Your task to perform on an android device: check data usage Image 0: 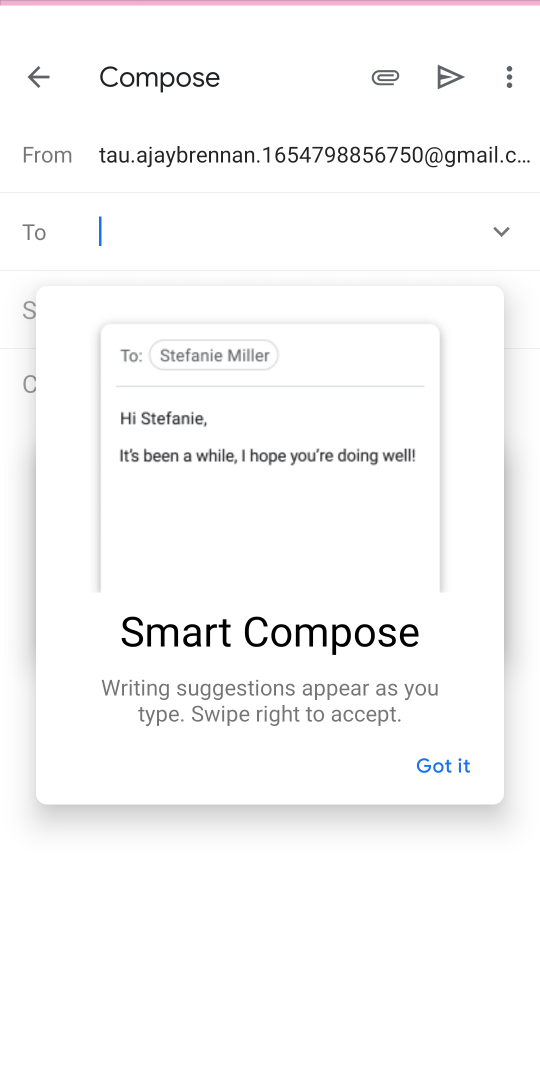
Step 0: press home button
Your task to perform on an android device: check data usage Image 1: 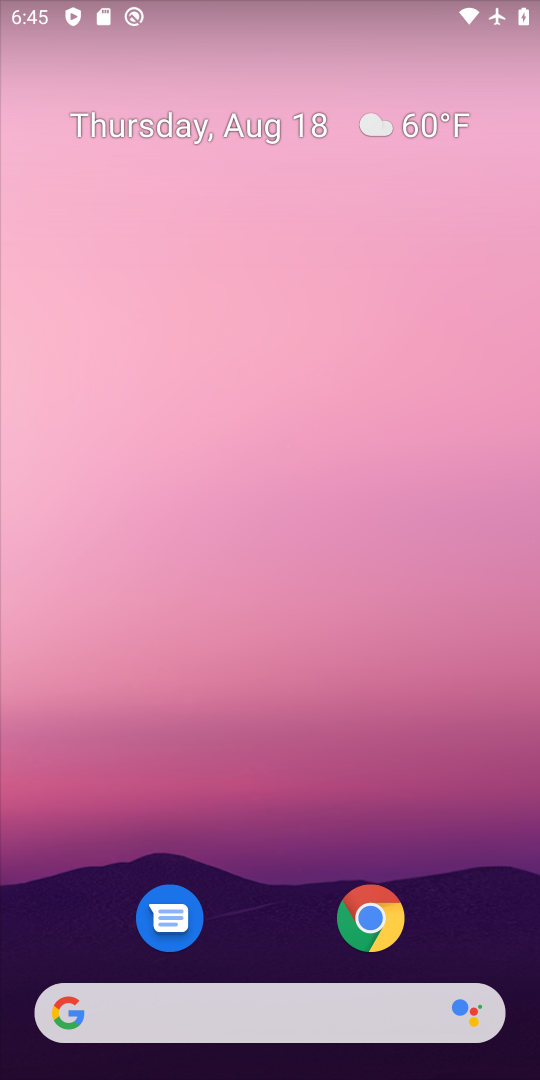
Step 1: drag from (291, 799) to (384, 34)
Your task to perform on an android device: check data usage Image 2: 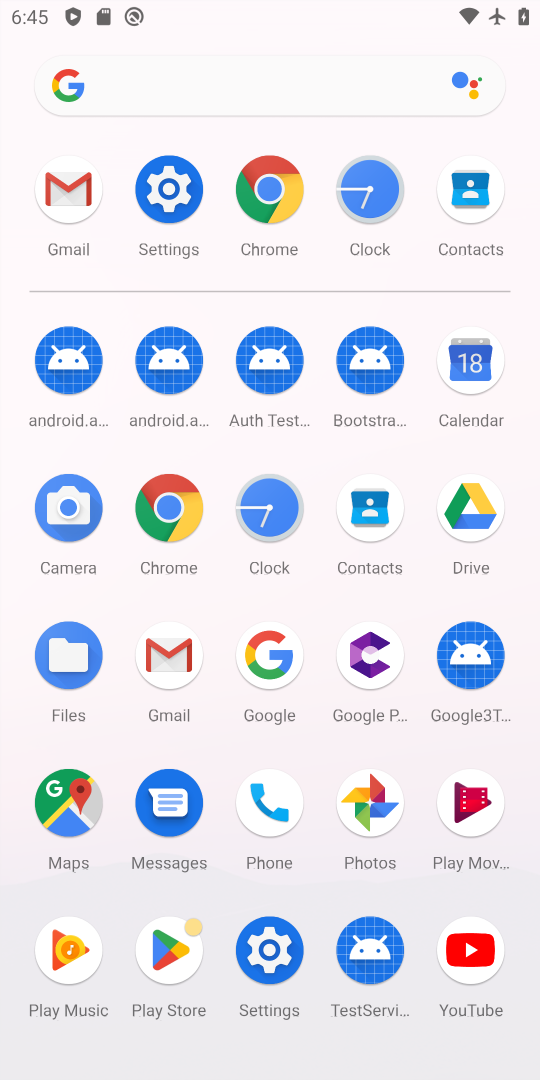
Step 2: click (180, 184)
Your task to perform on an android device: check data usage Image 3: 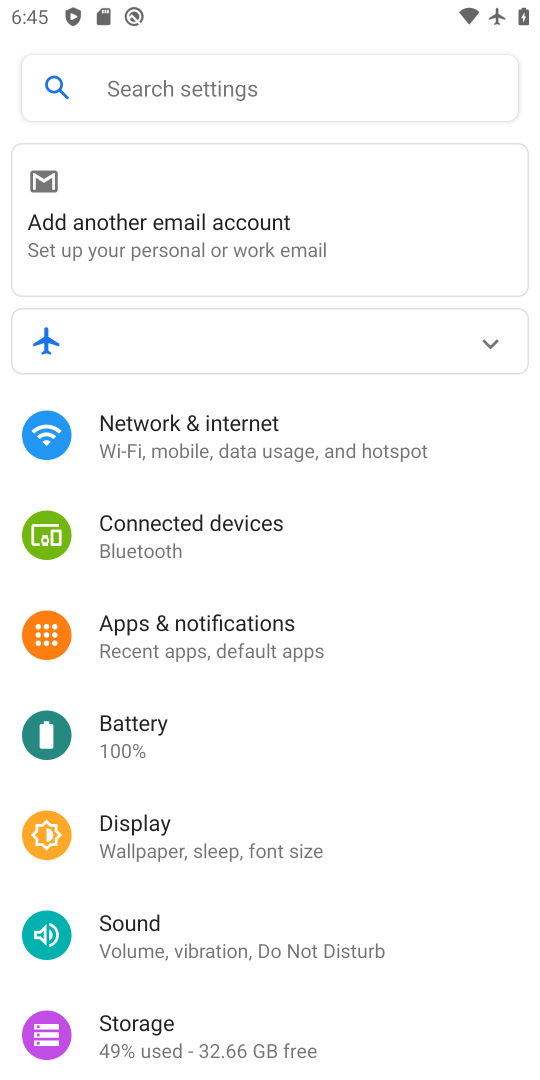
Step 3: drag from (429, 996) to (432, 597)
Your task to perform on an android device: check data usage Image 4: 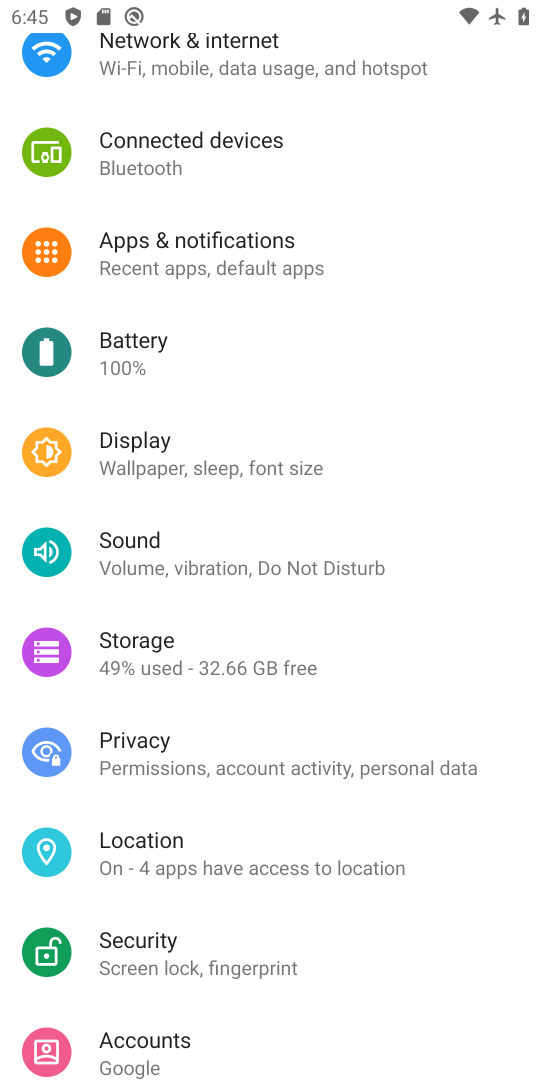
Step 4: click (212, 78)
Your task to perform on an android device: check data usage Image 5: 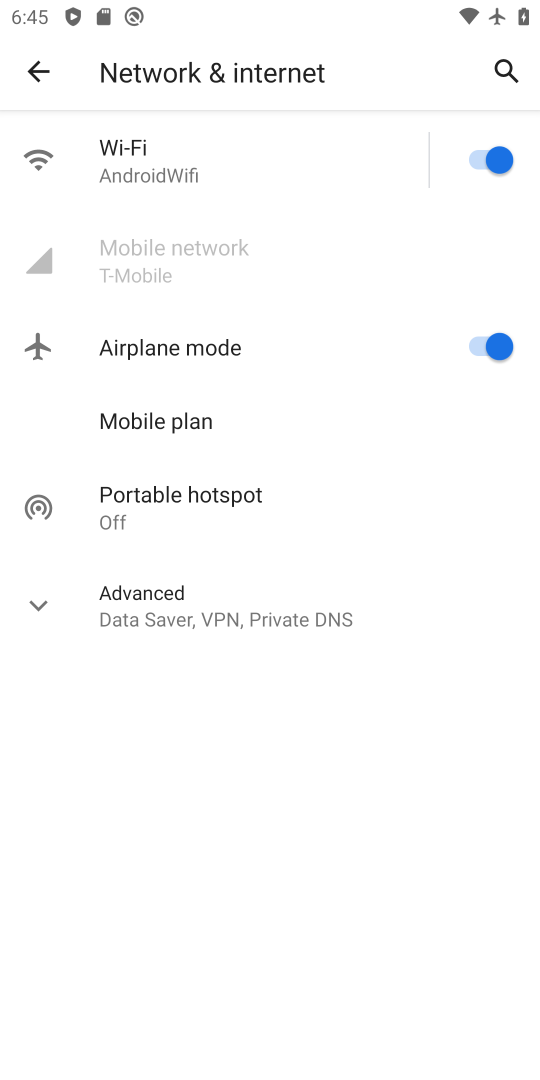
Step 5: click (506, 349)
Your task to perform on an android device: check data usage Image 6: 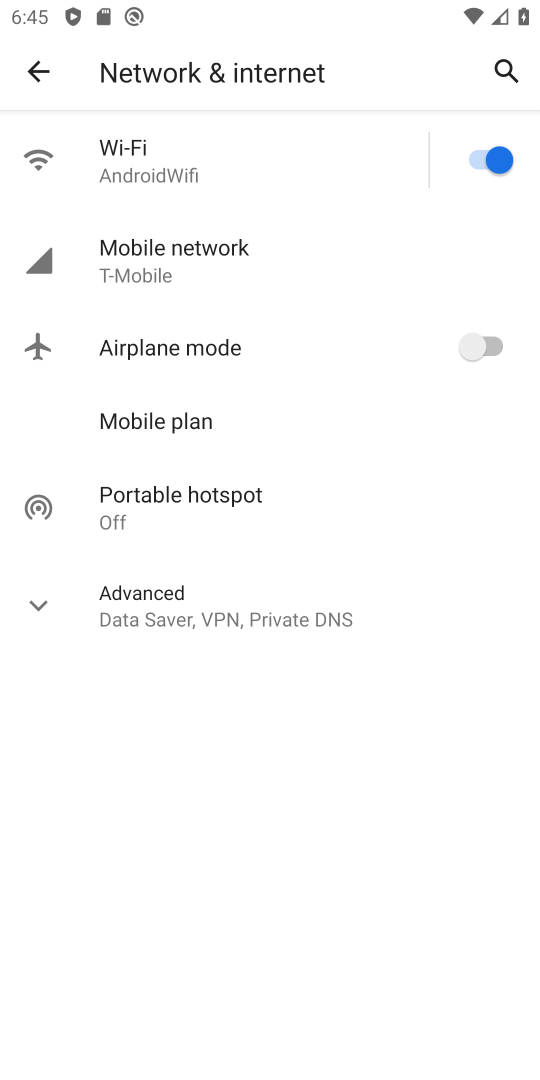
Step 6: click (189, 270)
Your task to perform on an android device: check data usage Image 7: 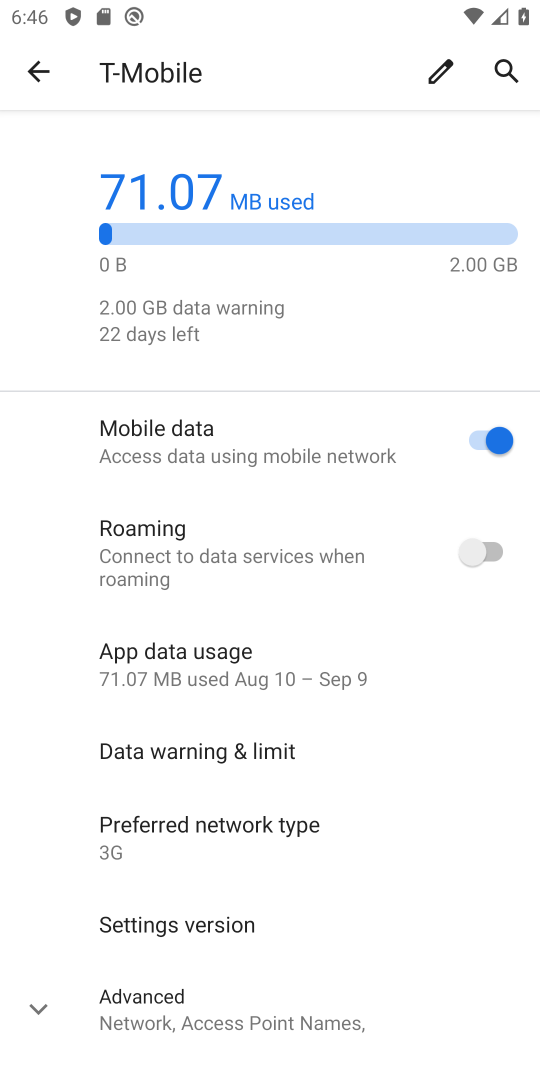
Step 7: click (191, 663)
Your task to perform on an android device: check data usage Image 8: 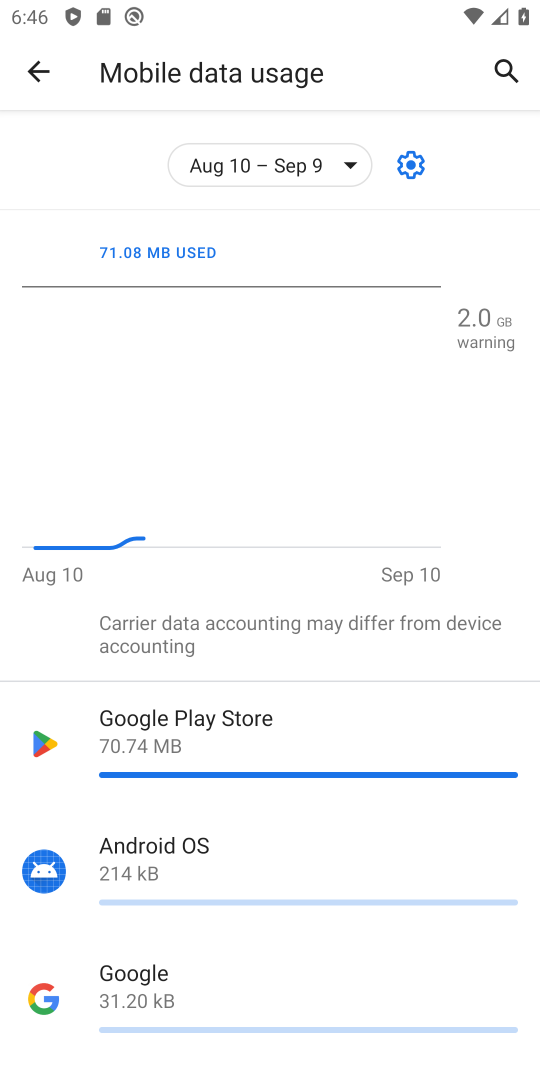
Step 8: task complete